Your task to perform on an android device: Find coffee shops on Maps Image 0: 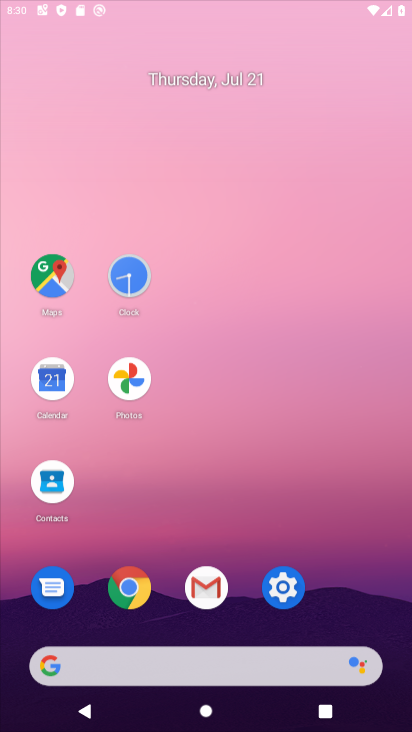
Step 0: click (129, 588)
Your task to perform on an android device: Find coffee shops on Maps Image 1: 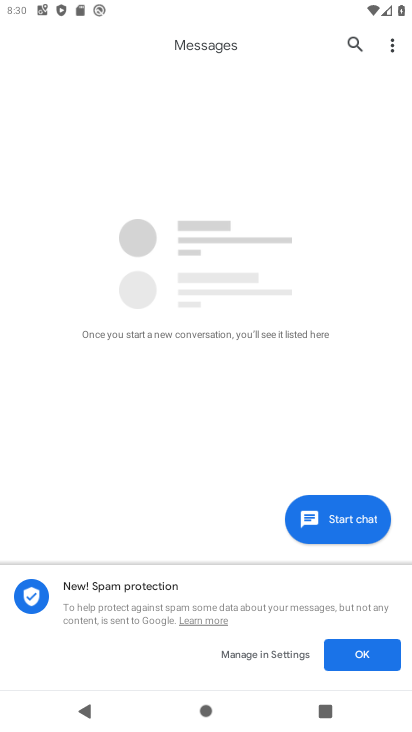
Step 1: press home button
Your task to perform on an android device: Find coffee shops on Maps Image 2: 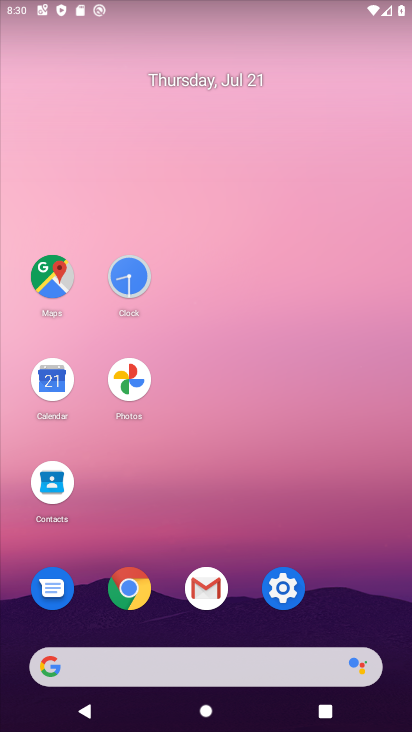
Step 2: click (54, 277)
Your task to perform on an android device: Find coffee shops on Maps Image 3: 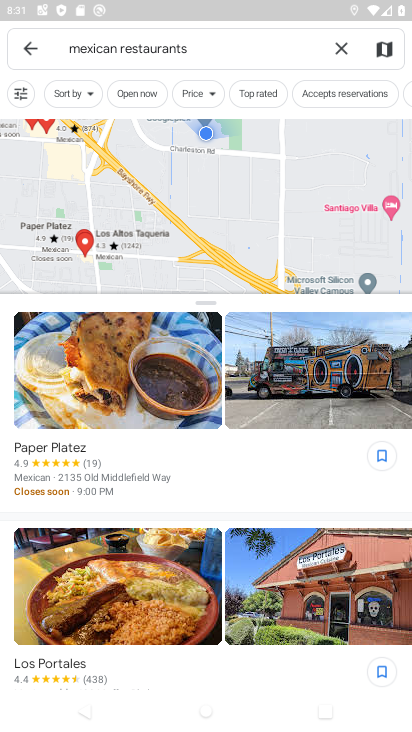
Step 3: click (346, 48)
Your task to perform on an android device: Find coffee shops on Maps Image 4: 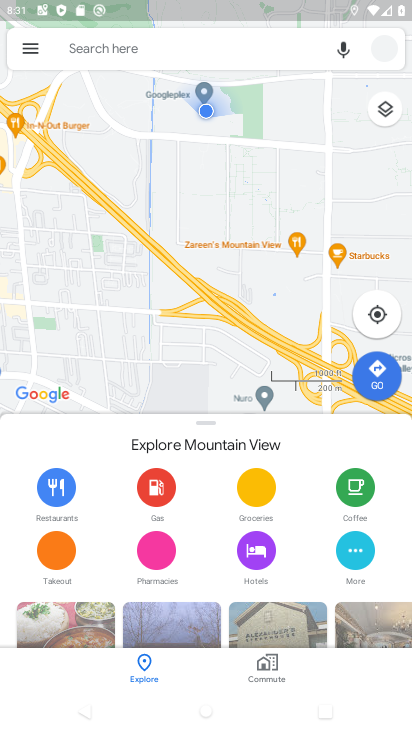
Step 4: click (111, 36)
Your task to perform on an android device: Find coffee shops on Maps Image 5: 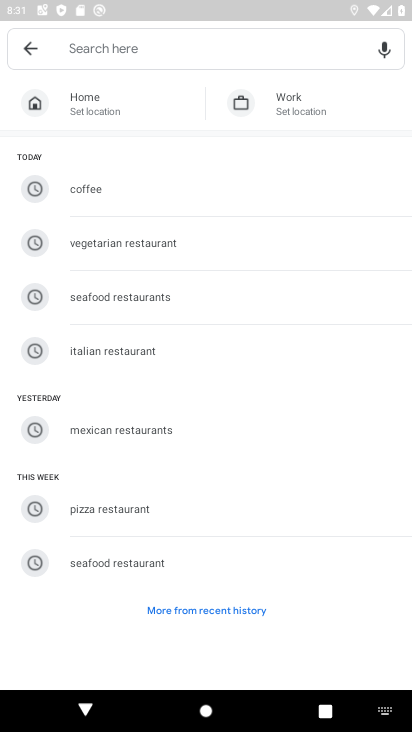
Step 5: click (85, 184)
Your task to perform on an android device: Find coffee shops on Maps Image 6: 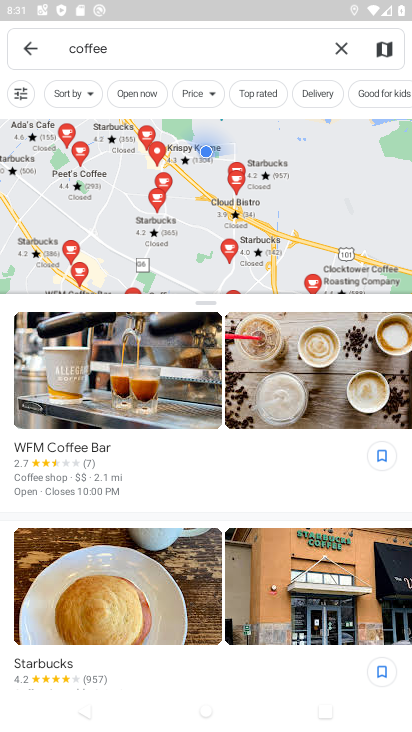
Step 6: task complete